Your task to perform on an android device: stop showing notifications on the lock screen Image 0: 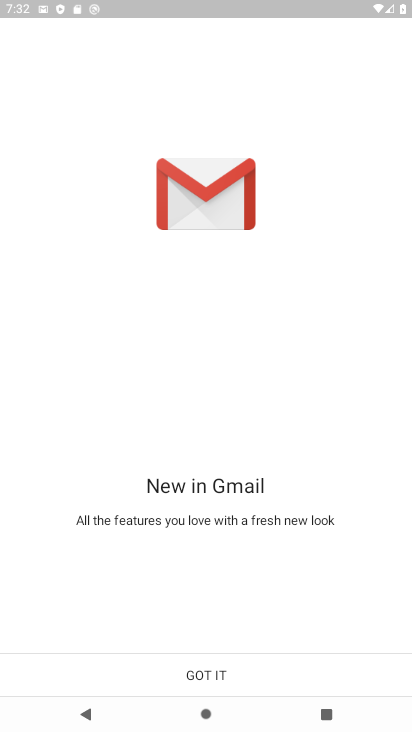
Step 0: press home button
Your task to perform on an android device: stop showing notifications on the lock screen Image 1: 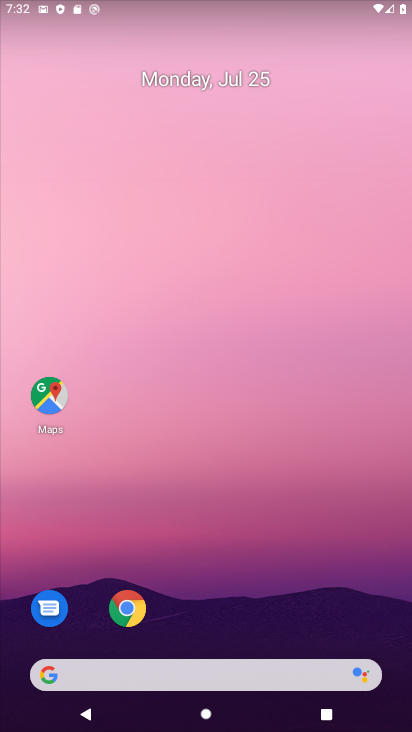
Step 1: drag from (304, 605) to (262, 5)
Your task to perform on an android device: stop showing notifications on the lock screen Image 2: 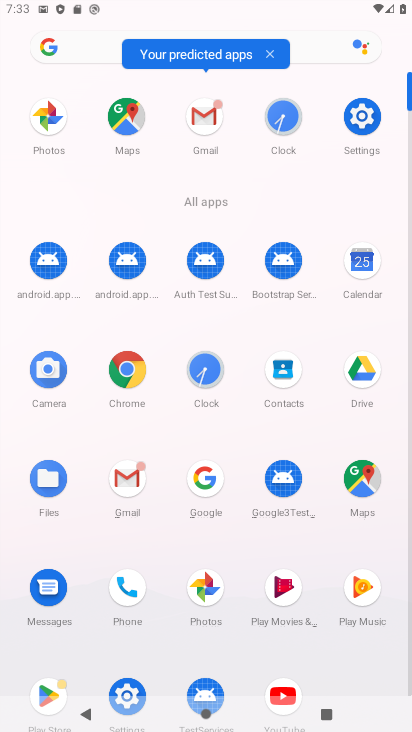
Step 2: click (361, 122)
Your task to perform on an android device: stop showing notifications on the lock screen Image 3: 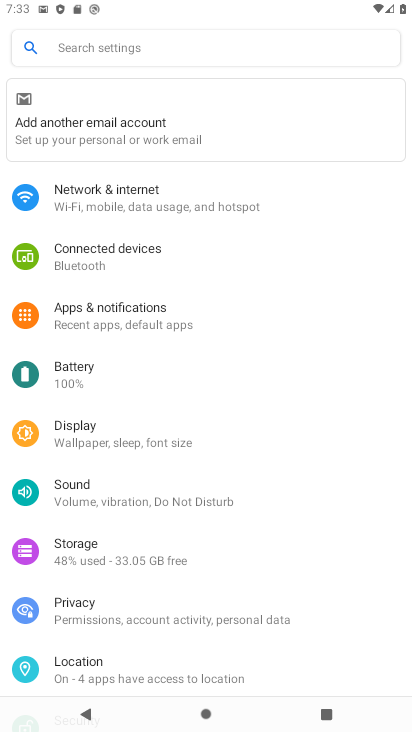
Step 3: click (108, 309)
Your task to perform on an android device: stop showing notifications on the lock screen Image 4: 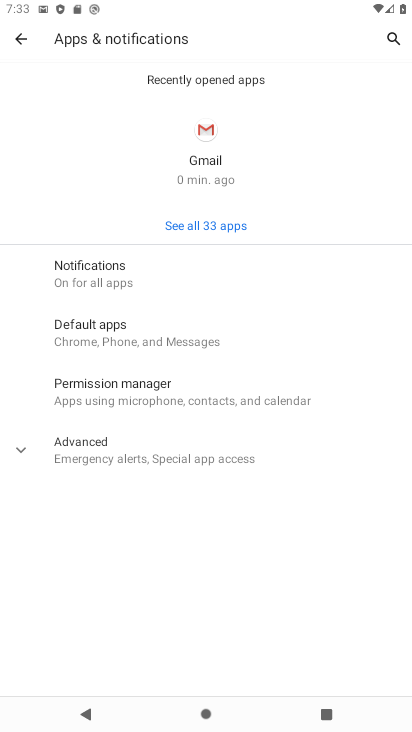
Step 4: click (101, 276)
Your task to perform on an android device: stop showing notifications on the lock screen Image 5: 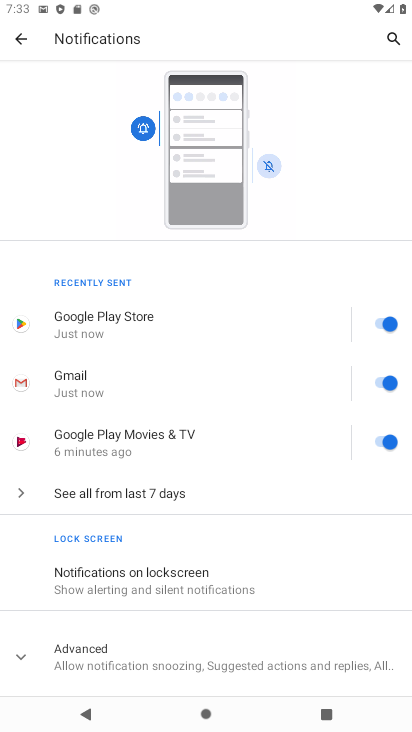
Step 5: click (164, 586)
Your task to perform on an android device: stop showing notifications on the lock screen Image 6: 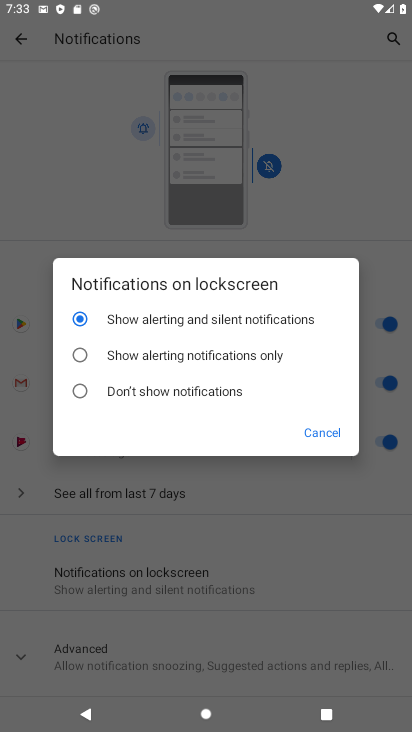
Step 6: click (173, 398)
Your task to perform on an android device: stop showing notifications on the lock screen Image 7: 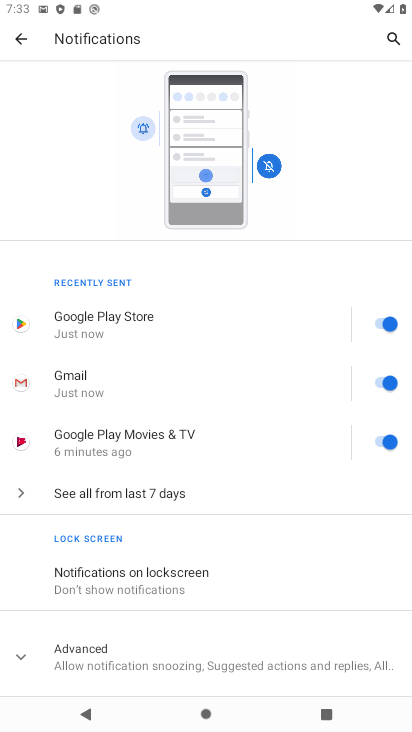
Step 7: task complete